Your task to perform on an android device: Open Chrome and go to the settings page Image 0: 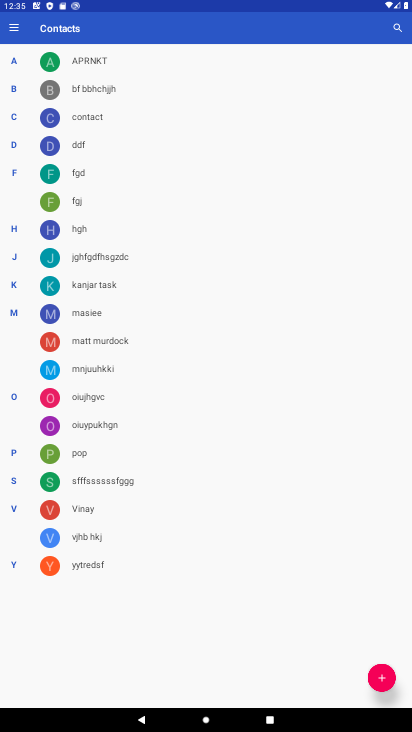
Step 0: press home button
Your task to perform on an android device: Open Chrome and go to the settings page Image 1: 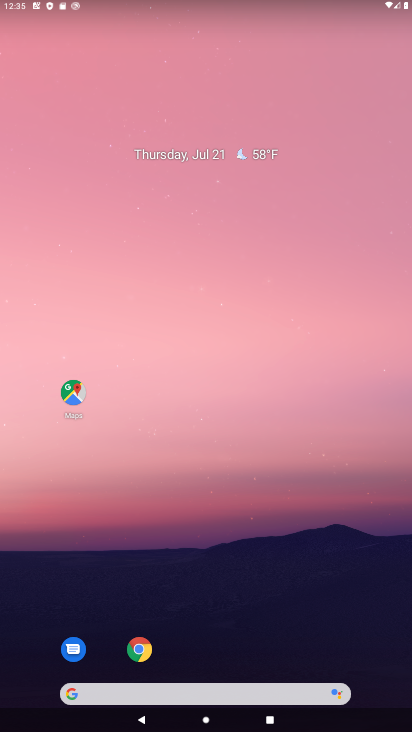
Step 1: click (139, 652)
Your task to perform on an android device: Open Chrome and go to the settings page Image 2: 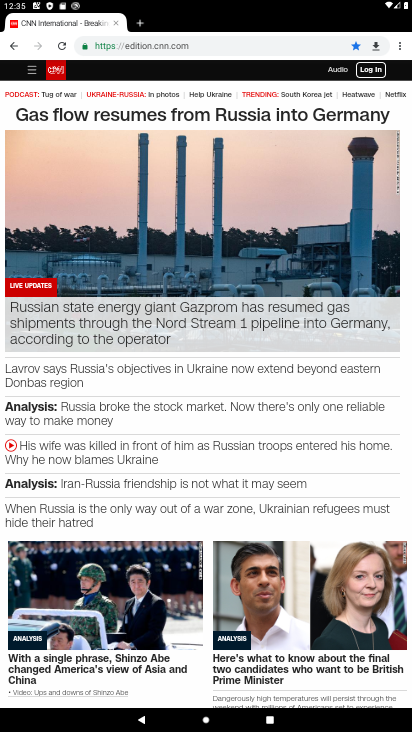
Step 2: click (398, 50)
Your task to perform on an android device: Open Chrome and go to the settings page Image 3: 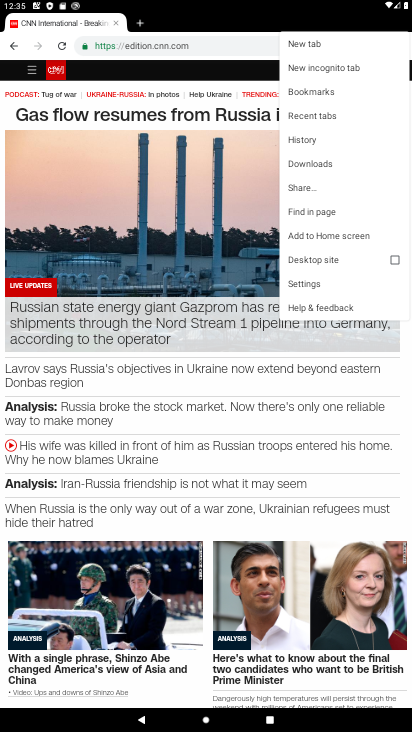
Step 3: click (303, 283)
Your task to perform on an android device: Open Chrome and go to the settings page Image 4: 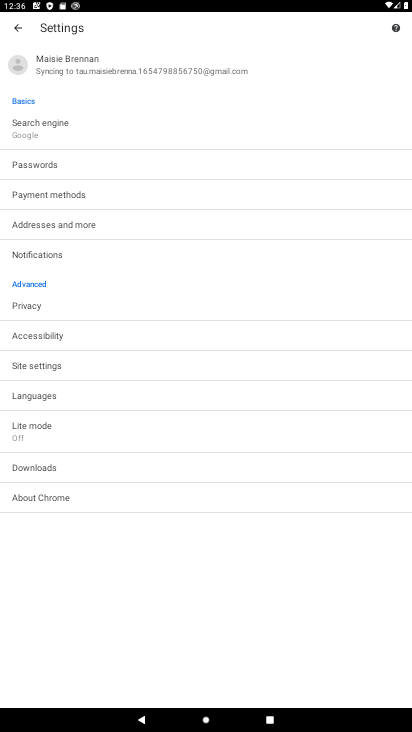
Step 4: task complete